Your task to perform on an android device: Open Chrome and go to settings Image 0: 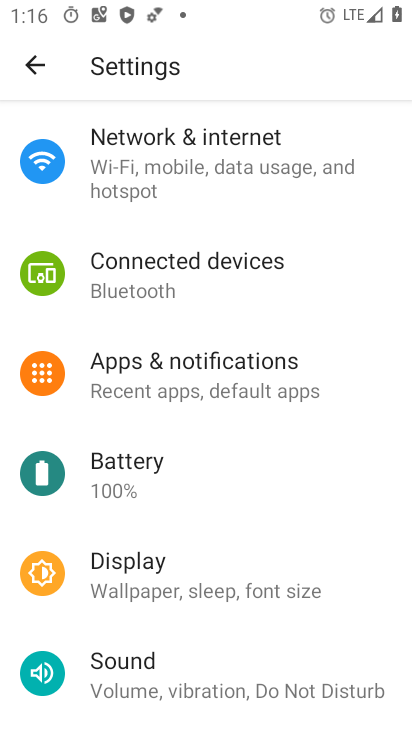
Step 0: press home button
Your task to perform on an android device: Open Chrome and go to settings Image 1: 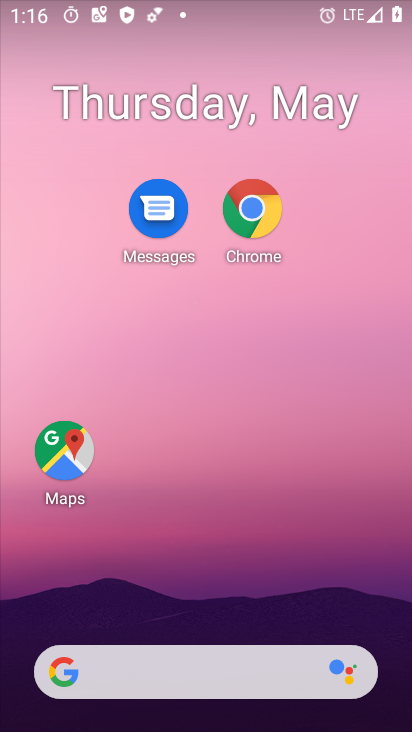
Step 1: click (251, 261)
Your task to perform on an android device: Open Chrome and go to settings Image 2: 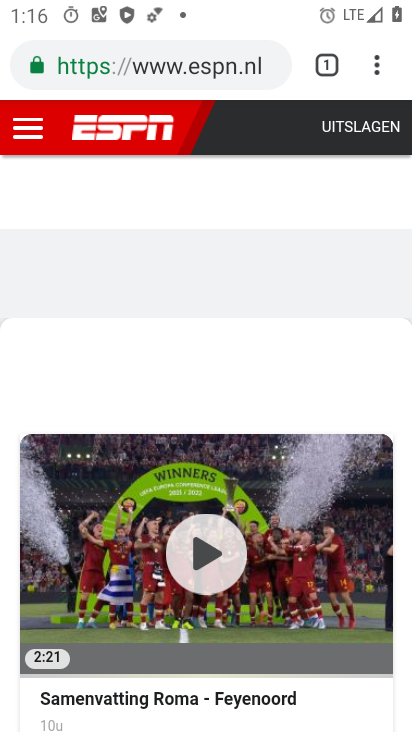
Step 2: click (379, 78)
Your task to perform on an android device: Open Chrome and go to settings Image 3: 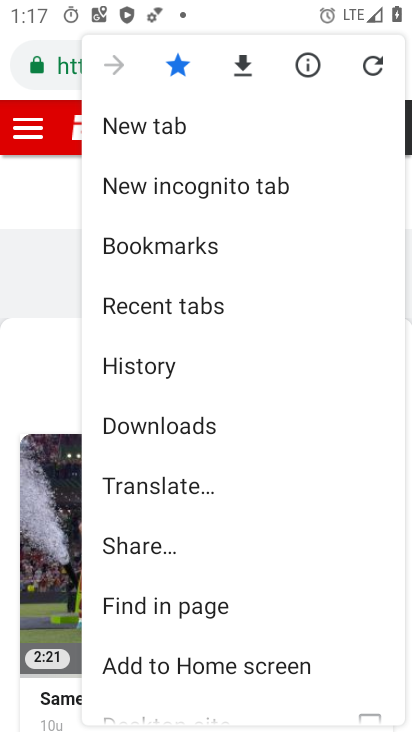
Step 3: drag from (140, 636) to (165, 346)
Your task to perform on an android device: Open Chrome and go to settings Image 4: 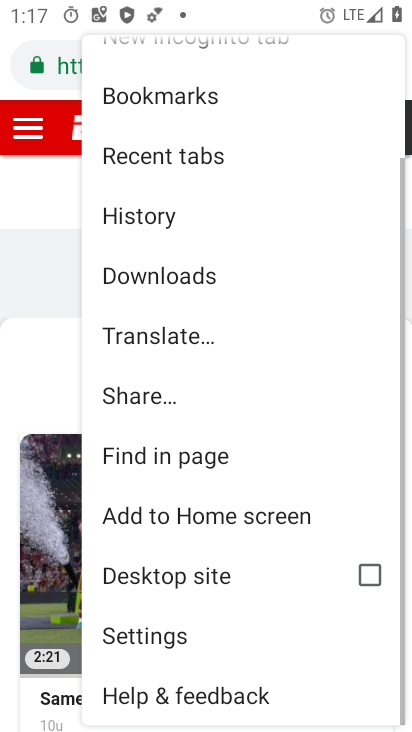
Step 4: click (159, 631)
Your task to perform on an android device: Open Chrome and go to settings Image 5: 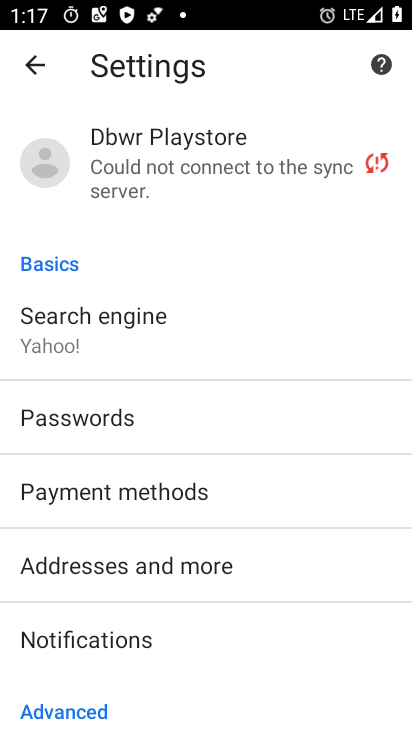
Step 5: task complete